Your task to perform on an android device: turn on javascript in the chrome app Image 0: 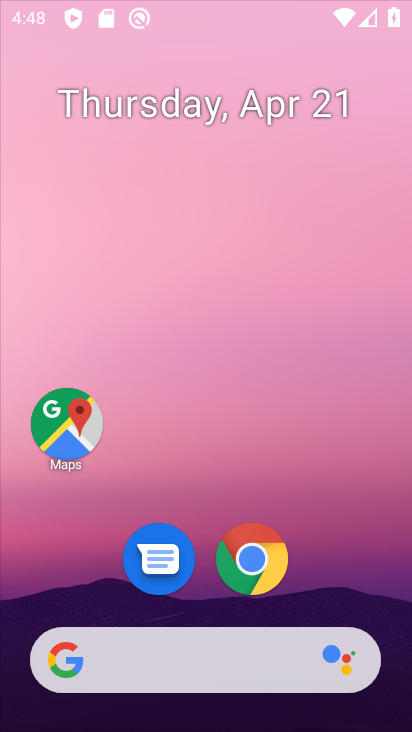
Step 0: drag from (341, 470) to (320, 82)
Your task to perform on an android device: turn on javascript in the chrome app Image 1: 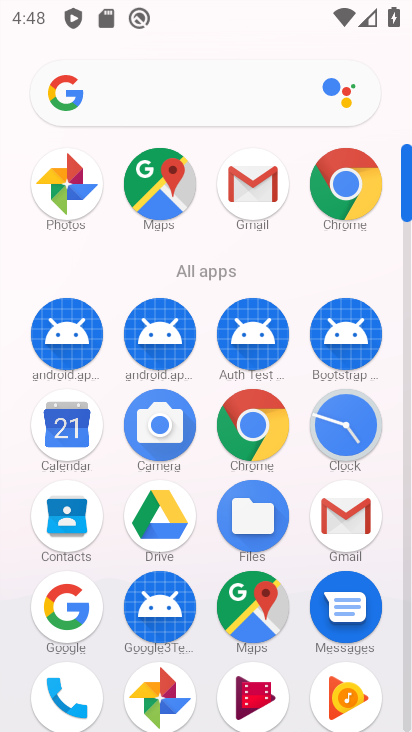
Step 1: click (359, 192)
Your task to perform on an android device: turn on javascript in the chrome app Image 2: 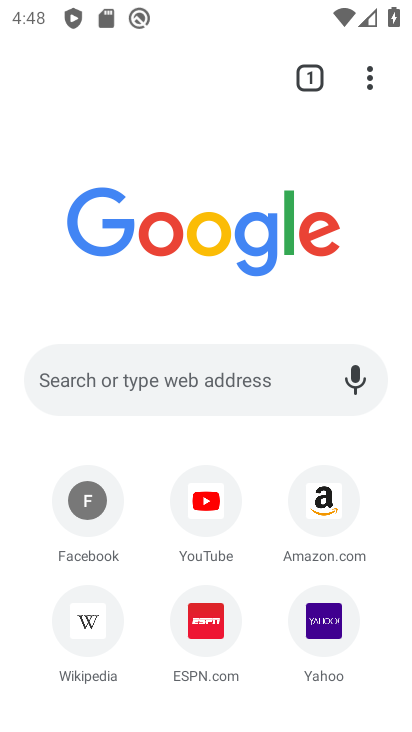
Step 2: drag from (384, 72) to (127, 635)
Your task to perform on an android device: turn on javascript in the chrome app Image 3: 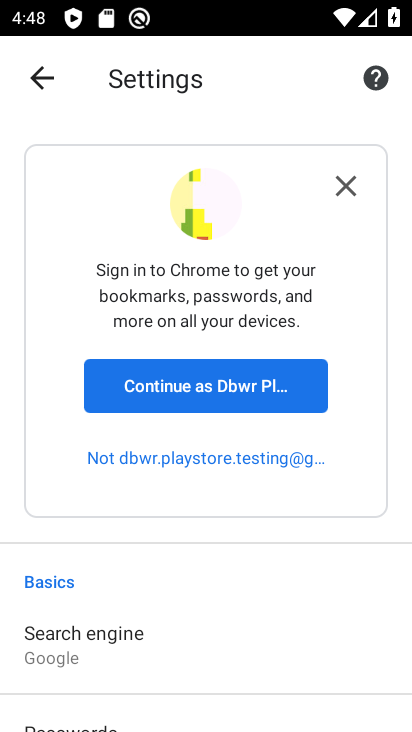
Step 3: drag from (149, 634) to (256, 153)
Your task to perform on an android device: turn on javascript in the chrome app Image 4: 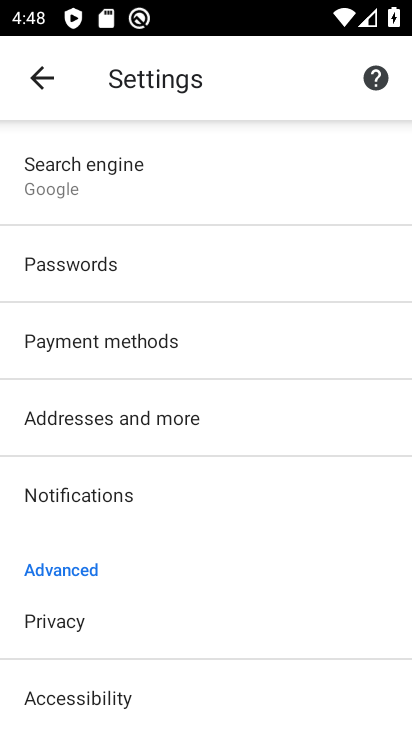
Step 4: drag from (167, 582) to (237, 260)
Your task to perform on an android device: turn on javascript in the chrome app Image 5: 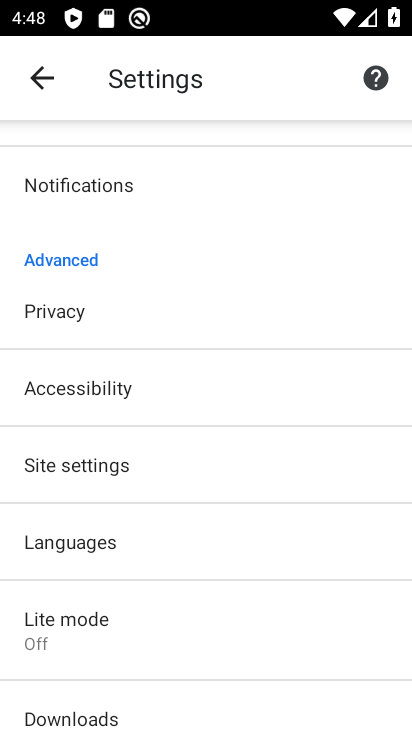
Step 5: click (120, 469)
Your task to perform on an android device: turn on javascript in the chrome app Image 6: 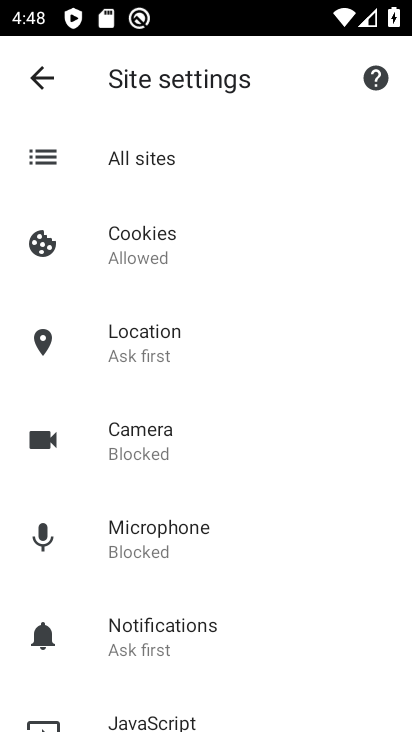
Step 6: drag from (179, 555) to (266, 248)
Your task to perform on an android device: turn on javascript in the chrome app Image 7: 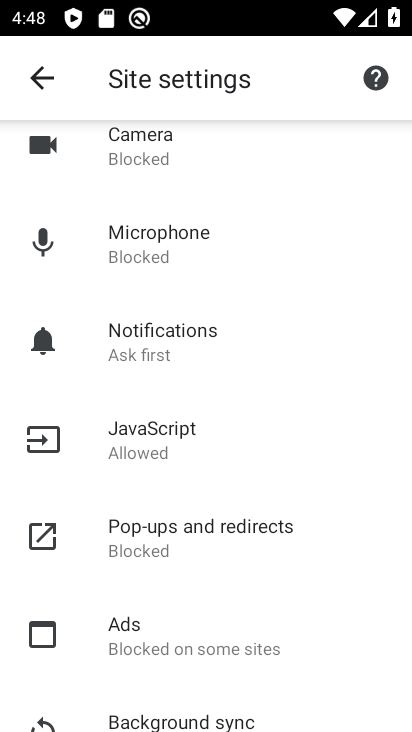
Step 7: click (144, 431)
Your task to perform on an android device: turn on javascript in the chrome app Image 8: 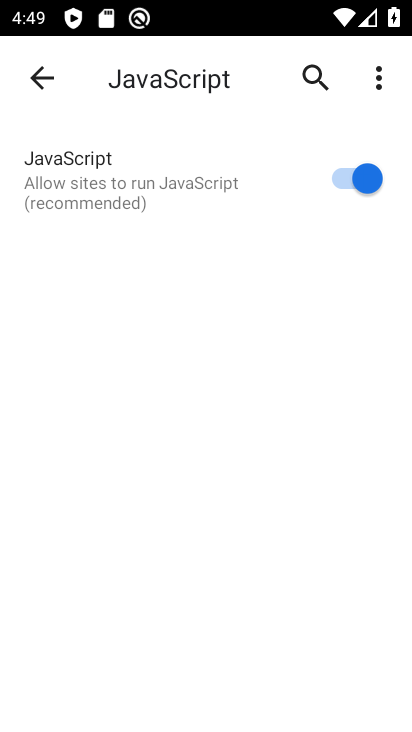
Step 8: task complete